Your task to perform on an android device: Open ESPN.com Image 0: 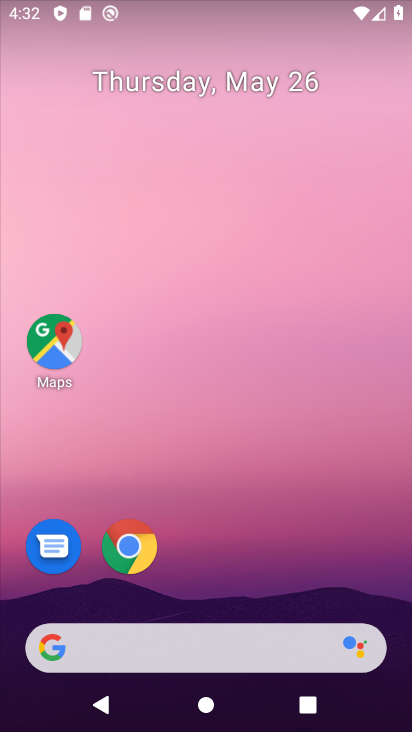
Step 0: click (145, 553)
Your task to perform on an android device: Open ESPN.com Image 1: 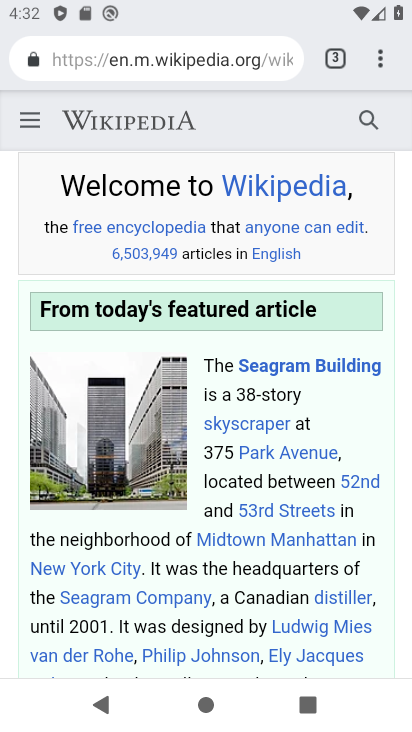
Step 1: click (199, 63)
Your task to perform on an android device: Open ESPN.com Image 2: 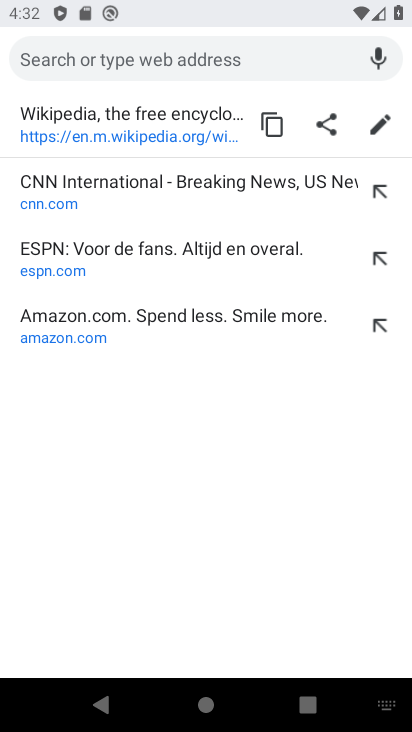
Step 2: click (77, 270)
Your task to perform on an android device: Open ESPN.com Image 3: 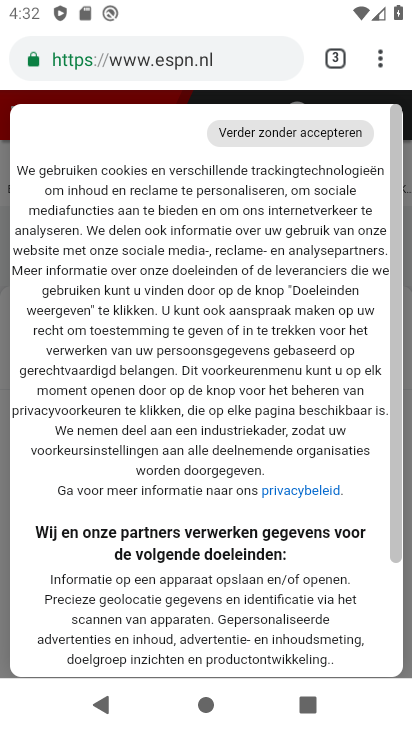
Step 3: task complete